Your task to perform on an android device: turn on priority inbox in the gmail app Image 0: 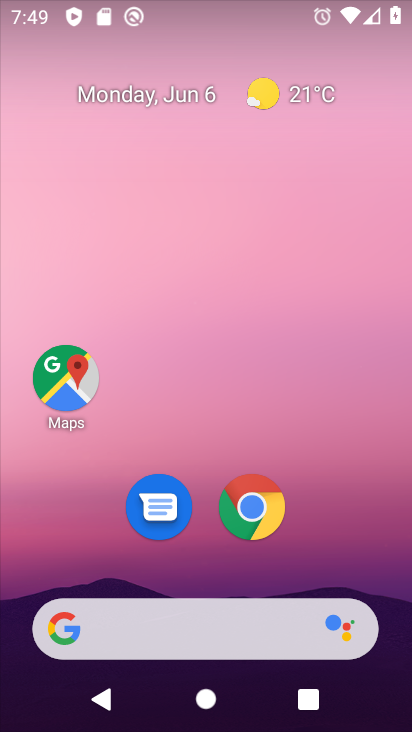
Step 0: drag from (215, 585) to (166, 124)
Your task to perform on an android device: turn on priority inbox in the gmail app Image 1: 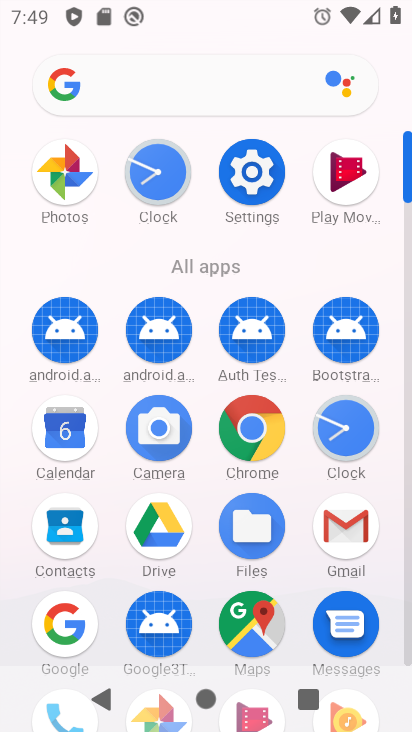
Step 1: click (355, 516)
Your task to perform on an android device: turn on priority inbox in the gmail app Image 2: 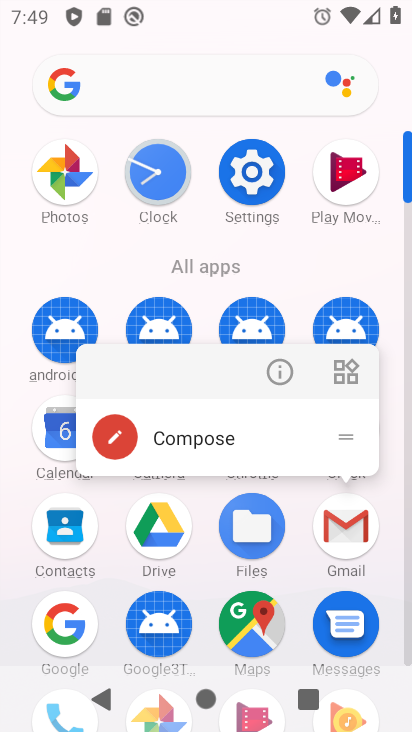
Step 2: click (350, 514)
Your task to perform on an android device: turn on priority inbox in the gmail app Image 3: 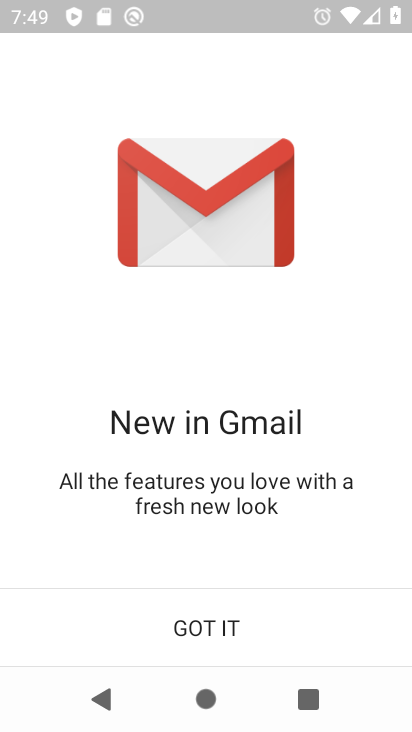
Step 3: click (240, 615)
Your task to perform on an android device: turn on priority inbox in the gmail app Image 4: 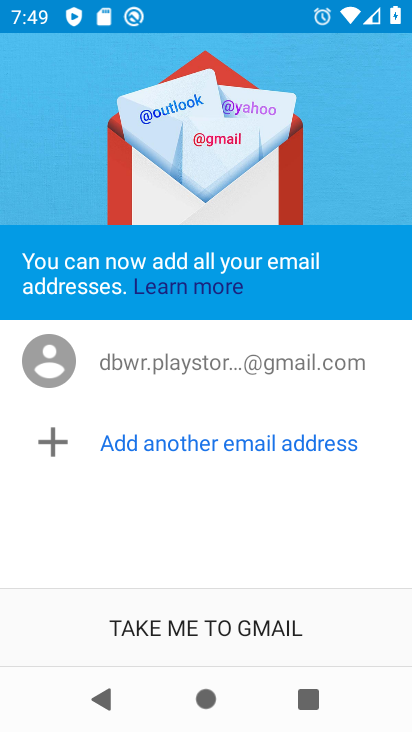
Step 4: click (236, 612)
Your task to perform on an android device: turn on priority inbox in the gmail app Image 5: 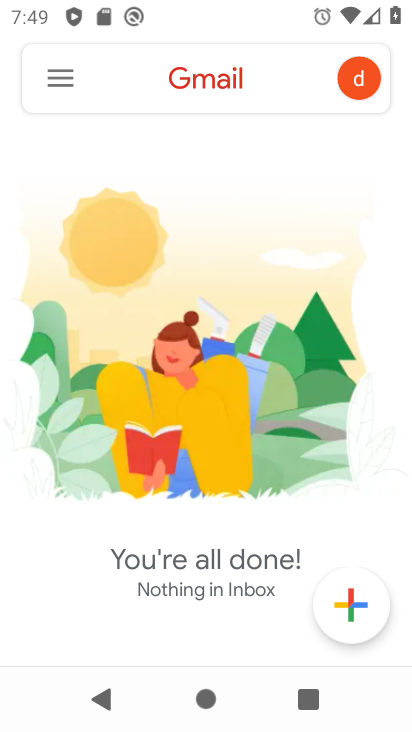
Step 5: click (46, 74)
Your task to perform on an android device: turn on priority inbox in the gmail app Image 6: 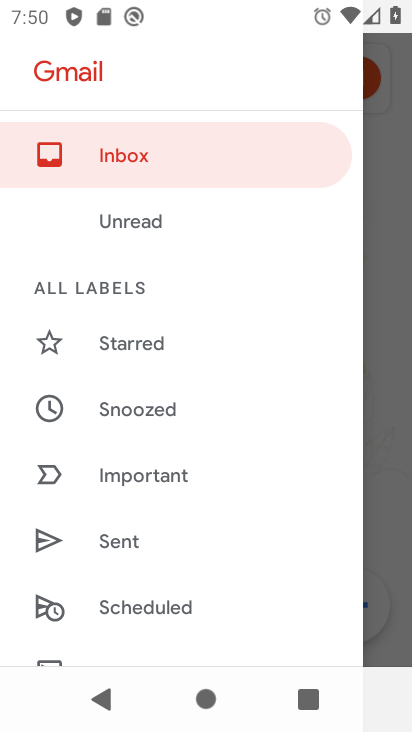
Step 6: drag from (177, 565) to (151, 173)
Your task to perform on an android device: turn on priority inbox in the gmail app Image 7: 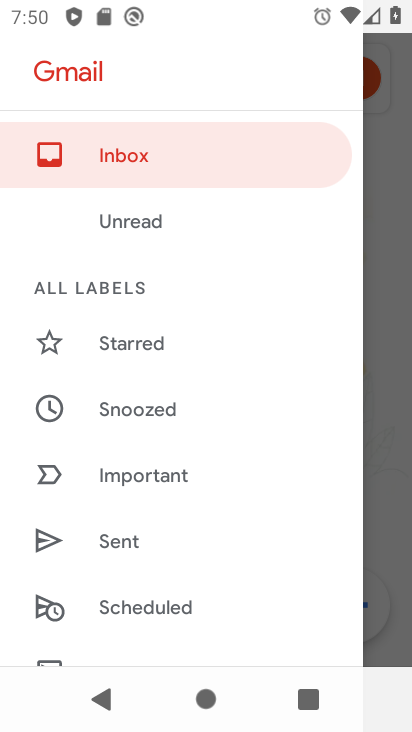
Step 7: drag from (158, 525) to (152, 79)
Your task to perform on an android device: turn on priority inbox in the gmail app Image 8: 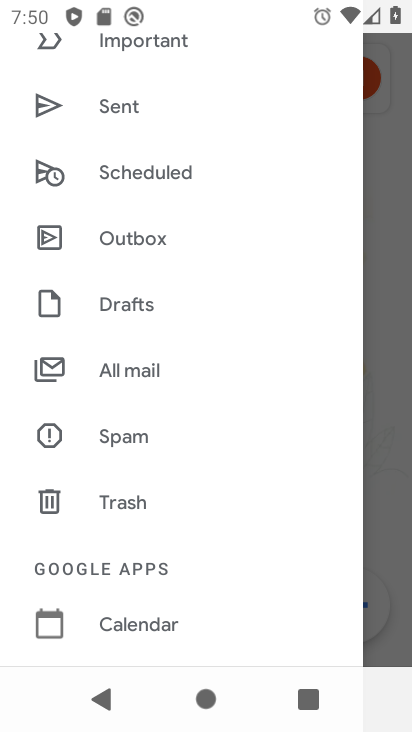
Step 8: drag from (171, 549) to (158, 190)
Your task to perform on an android device: turn on priority inbox in the gmail app Image 9: 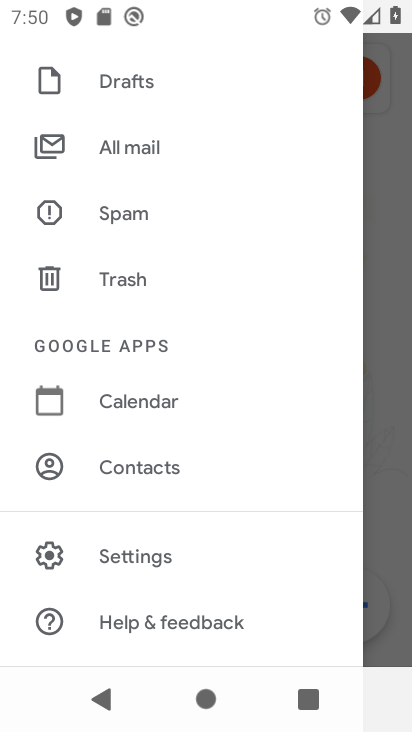
Step 9: click (121, 543)
Your task to perform on an android device: turn on priority inbox in the gmail app Image 10: 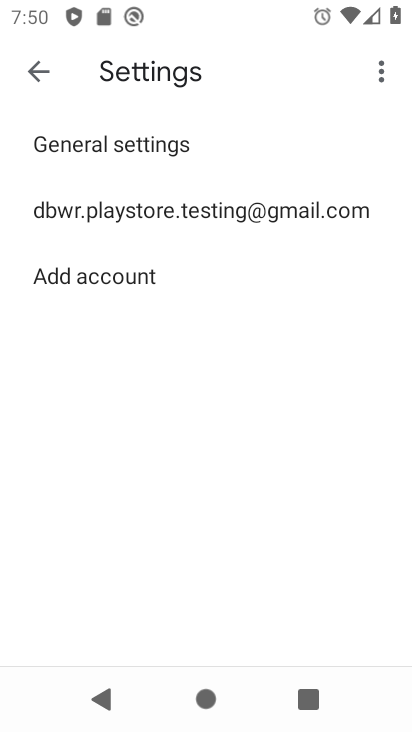
Step 10: click (130, 223)
Your task to perform on an android device: turn on priority inbox in the gmail app Image 11: 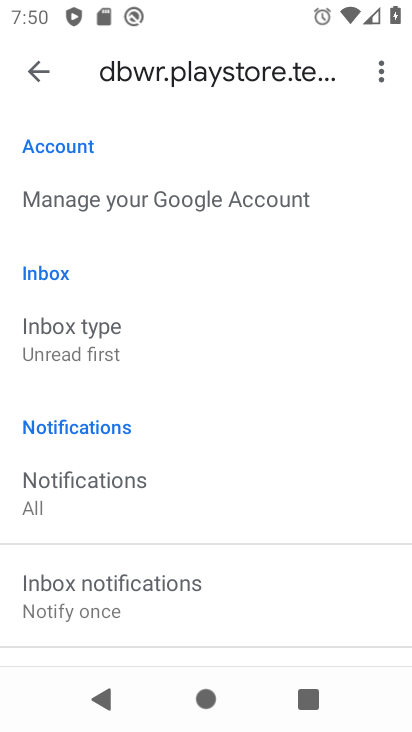
Step 11: click (122, 342)
Your task to perform on an android device: turn on priority inbox in the gmail app Image 12: 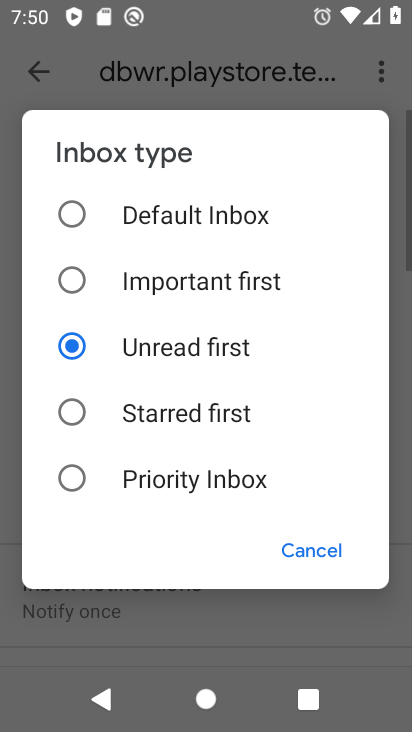
Step 12: click (148, 475)
Your task to perform on an android device: turn on priority inbox in the gmail app Image 13: 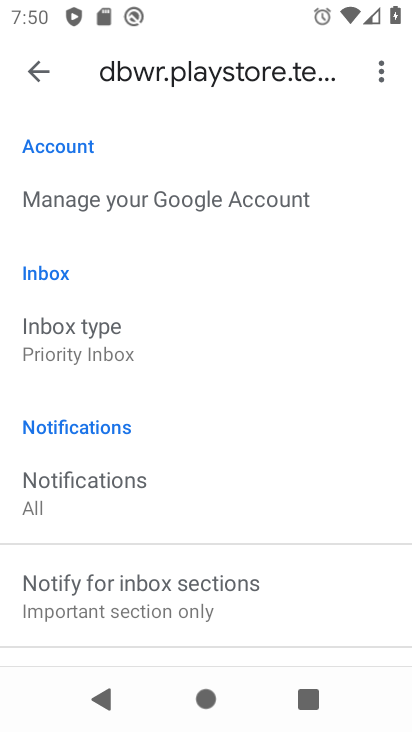
Step 13: task complete